Your task to perform on an android device: check data usage Image 0: 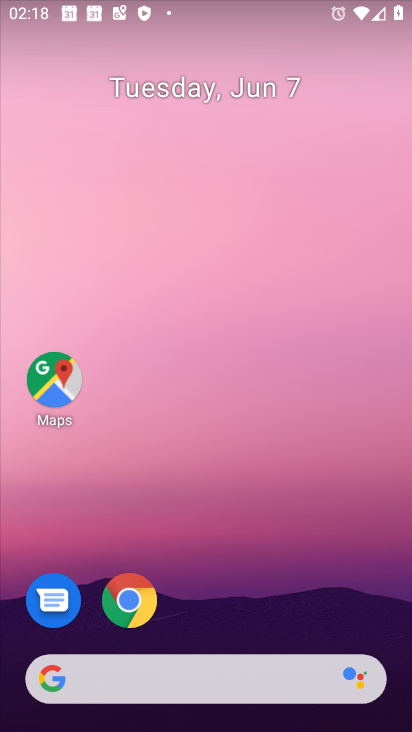
Step 0: drag from (218, 724) to (201, 207)
Your task to perform on an android device: check data usage Image 1: 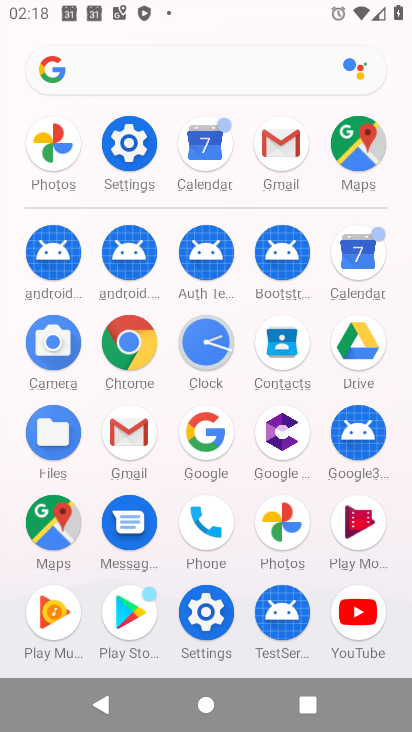
Step 1: click (126, 146)
Your task to perform on an android device: check data usage Image 2: 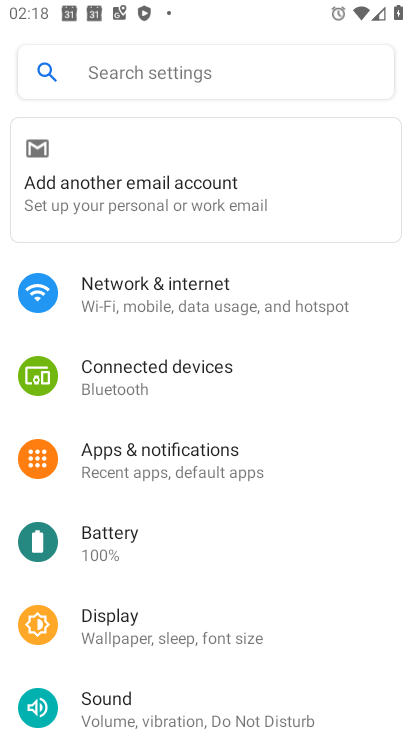
Step 2: click (146, 297)
Your task to perform on an android device: check data usage Image 3: 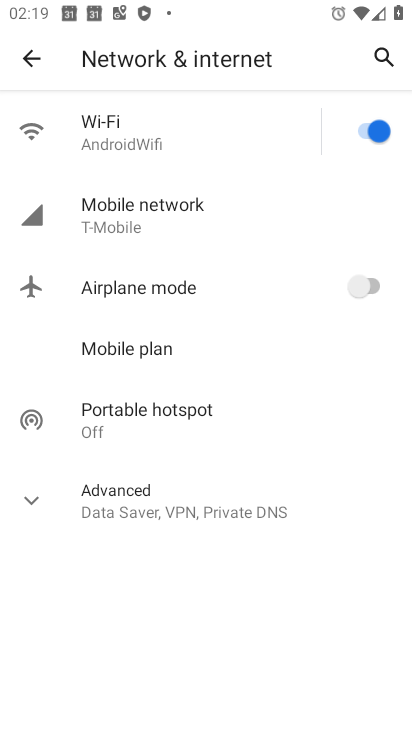
Step 3: click (120, 217)
Your task to perform on an android device: check data usage Image 4: 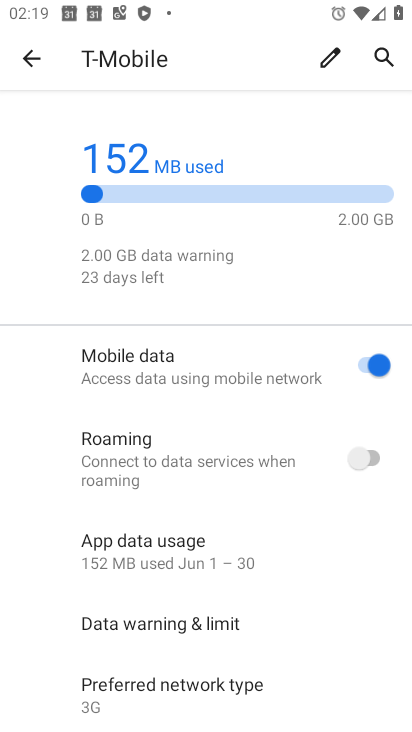
Step 4: click (138, 547)
Your task to perform on an android device: check data usage Image 5: 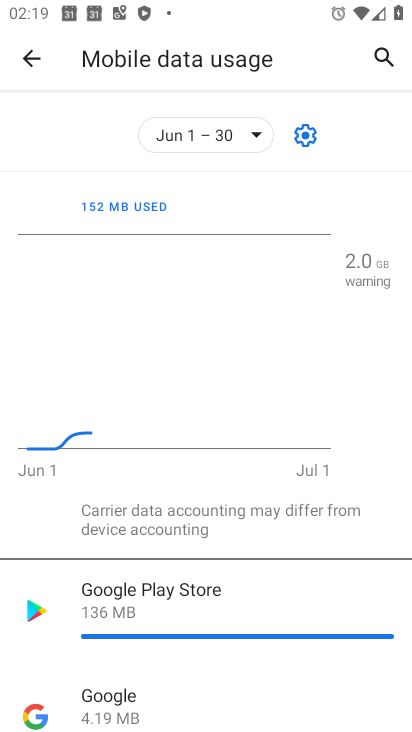
Step 5: task complete